Your task to perform on an android device: Open internet settings Image 0: 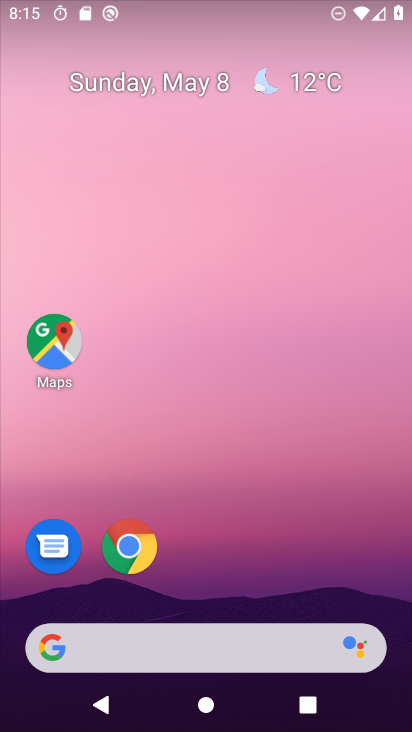
Step 0: drag from (192, 541) to (190, 31)
Your task to perform on an android device: Open internet settings Image 1: 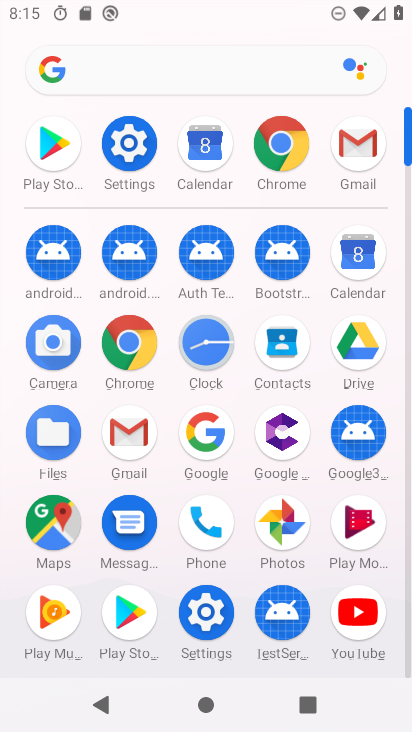
Step 1: click (136, 145)
Your task to perform on an android device: Open internet settings Image 2: 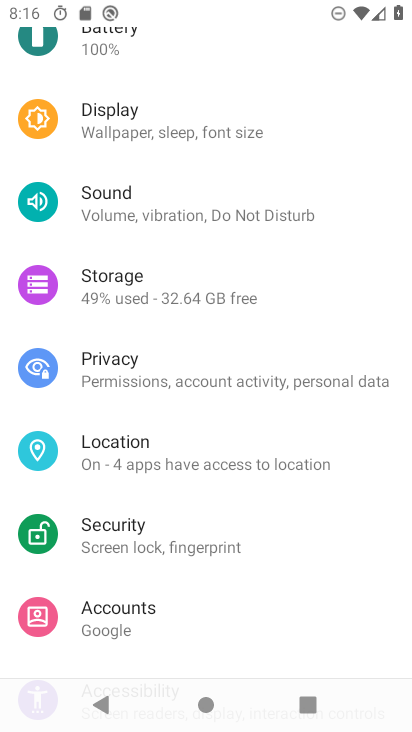
Step 2: drag from (181, 148) to (261, 668)
Your task to perform on an android device: Open internet settings Image 3: 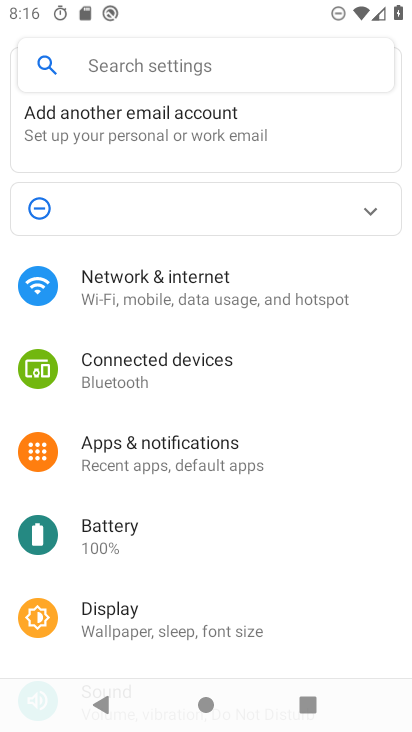
Step 3: click (254, 291)
Your task to perform on an android device: Open internet settings Image 4: 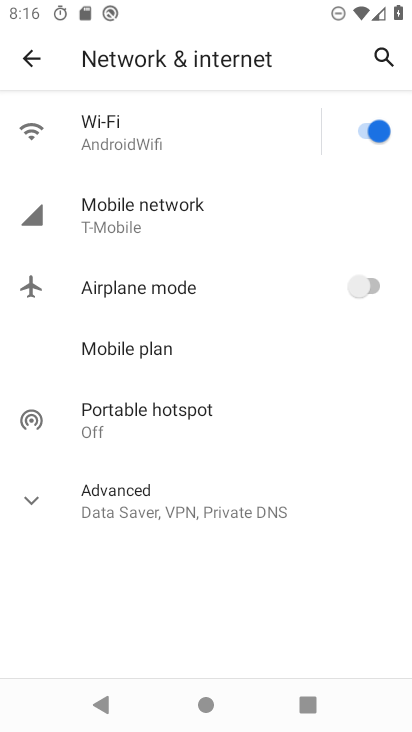
Step 4: task complete